Your task to perform on an android device: Go to battery settings Image 0: 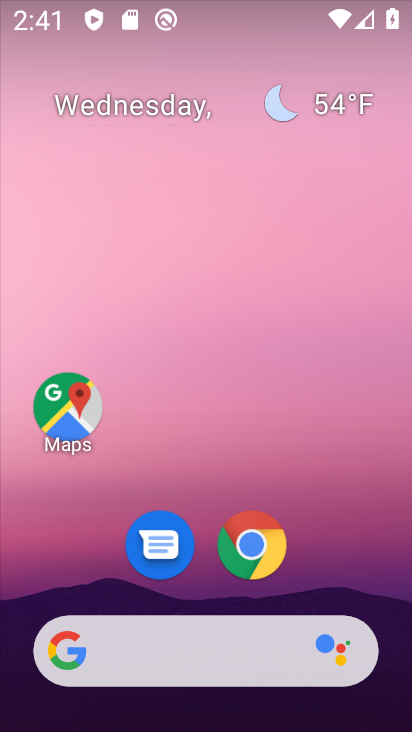
Step 0: drag from (298, 690) to (368, 260)
Your task to perform on an android device: Go to battery settings Image 1: 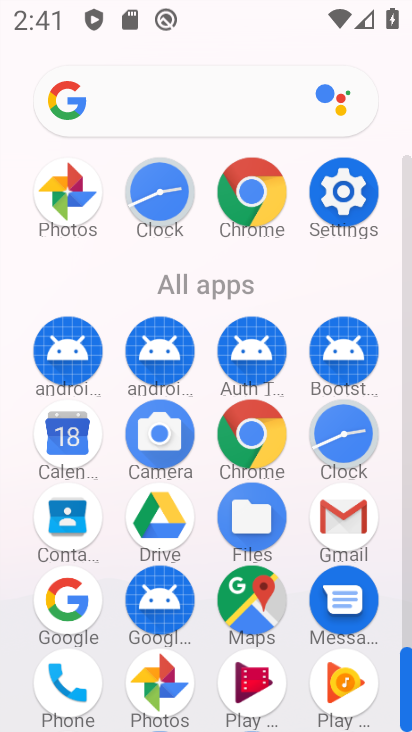
Step 1: click (354, 205)
Your task to perform on an android device: Go to battery settings Image 2: 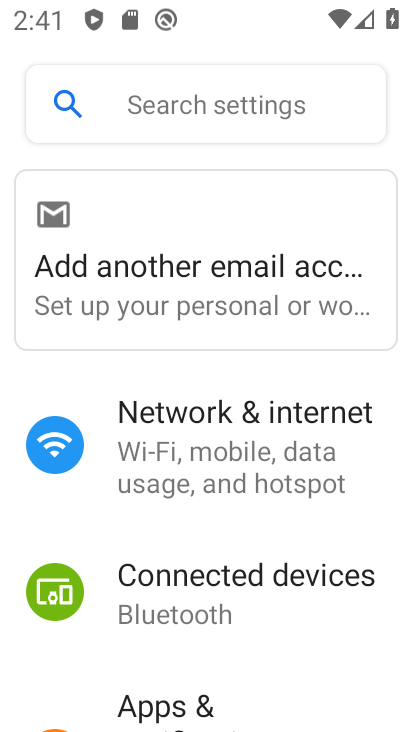
Step 2: click (175, 111)
Your task to perform on an android device: Go to battery settings Image 3: 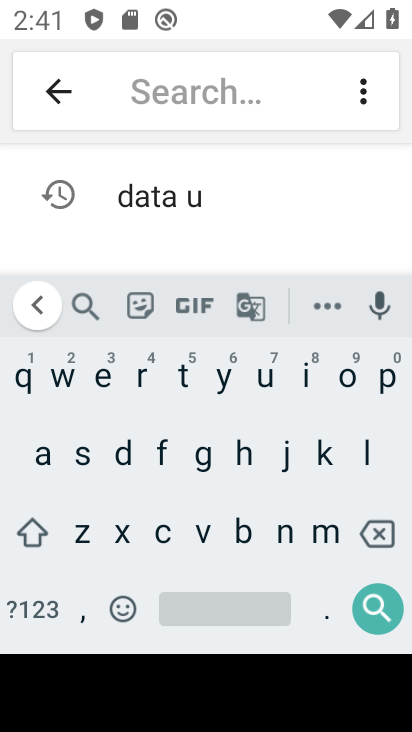
Step 3: click (240, 530)
Your task to perform on an android device: Go to battery settings Image 4: 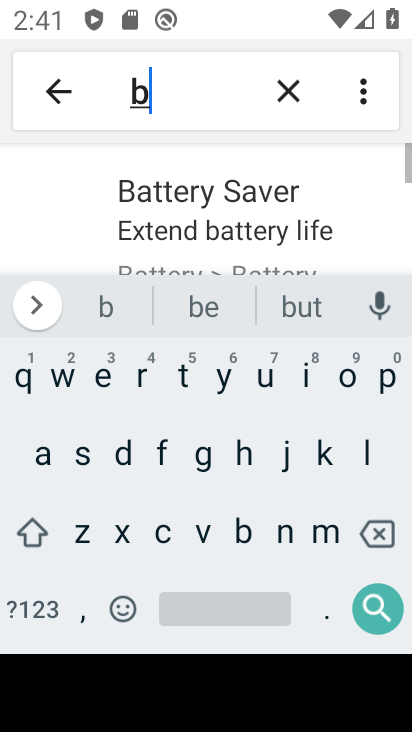
Step 4: click (34, 449)
Your task to perform on an android device: Go to battery settings Image 5: 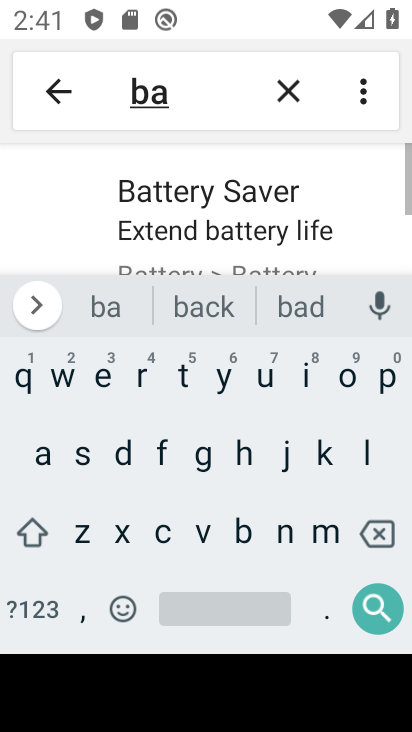
Step 5: click (184, 377)
Your task to perform on an android device: Go to battery settings Image 6: 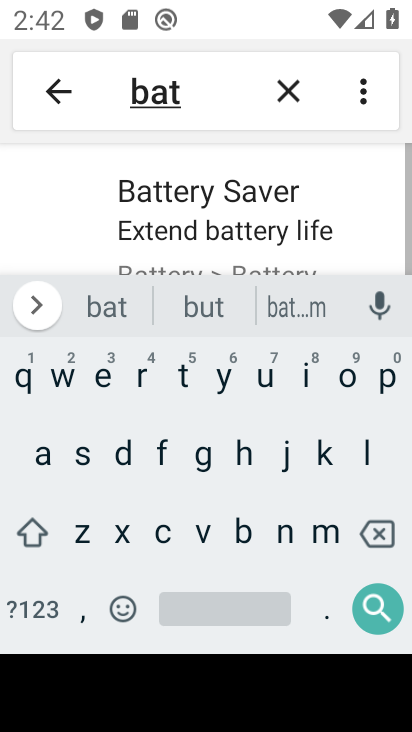
Step 6: click (183, 394)
Your task to perform on an android device: Go to battery settings Image 7: 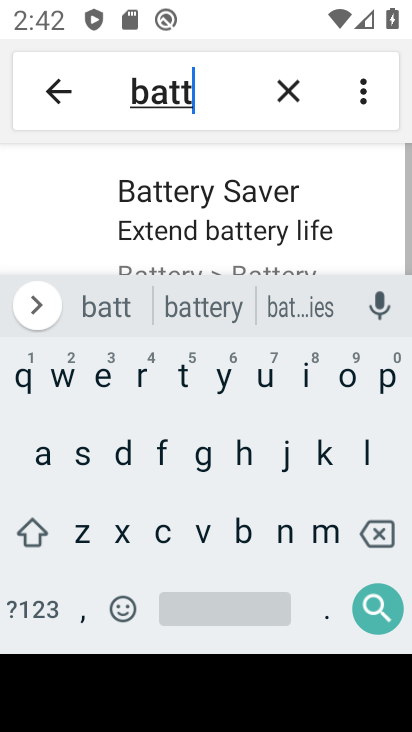
Step 7: click (209, 322)
Your task to perform on an android device: Go to battery settings Image 8: 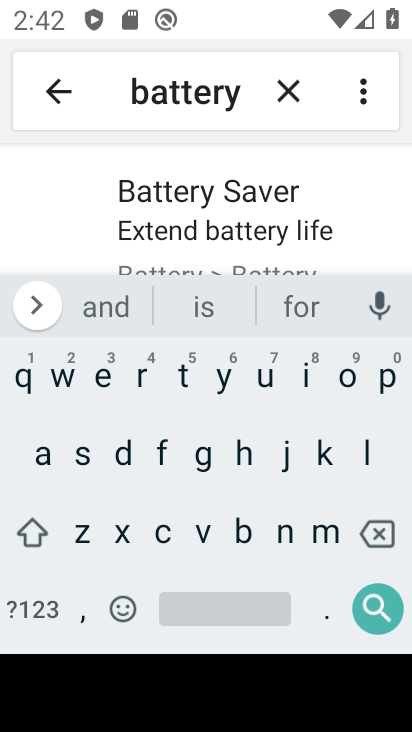
Step 8: press back button
Your task to perform on an android device: Go to battery settings Image 9: 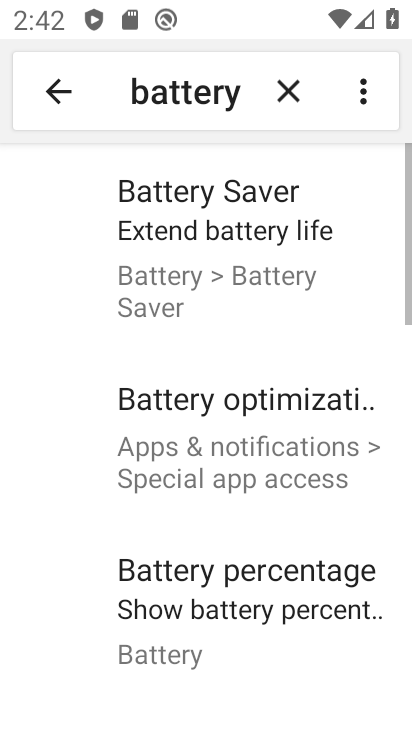
Step 9: drag from (178, 574) to (215, 383)
Your task to perform on an android device: Go to battery settings Image 10: 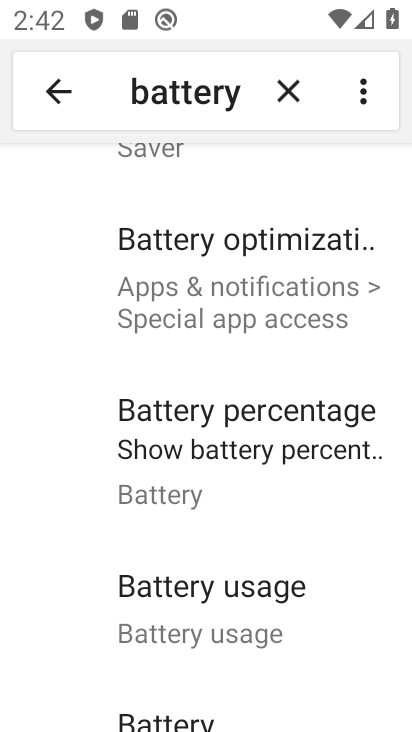
Step 10: click (164, 701)
Your task to perform on an android device: Go to battery settings Image 11: 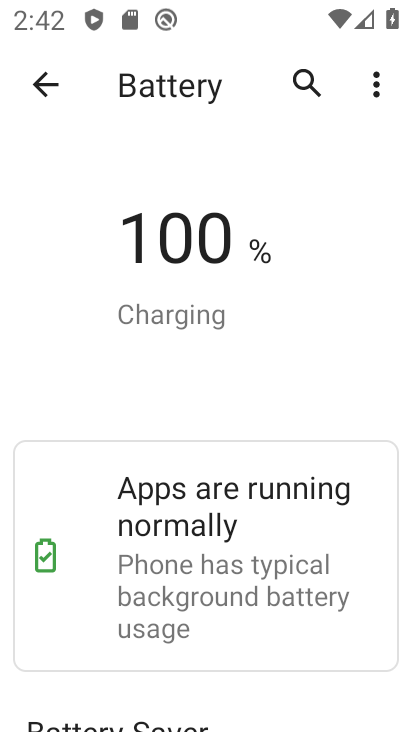
Step 11: task complete